Your task to perform on an android device: Add "macbook pro 15 inch" to the cart on costco Image 0: 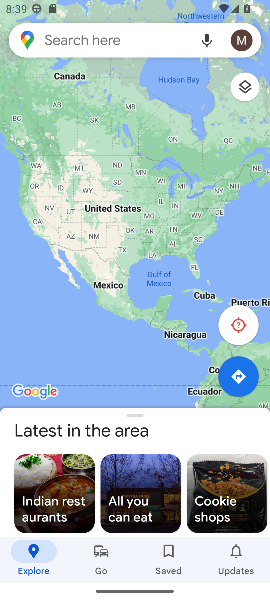
Step 0: press home button
Your task to perform on an android device: Add "macbook pro 15 inch" to the cart on costco Image 1: 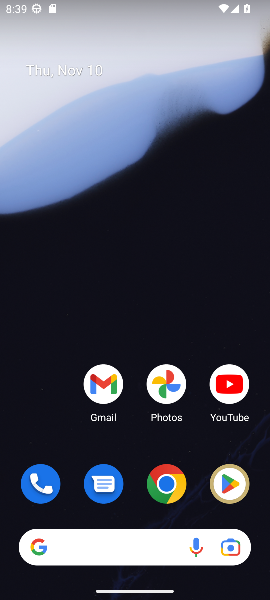
Step 1: click (168, 487)
Your task to perform on an android device: Add "macbook pro 15 inch" to the cart on costco Image 2: 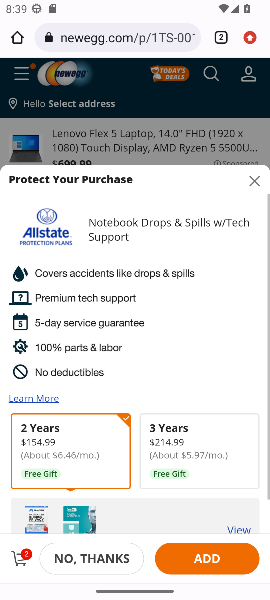
Step 2: click (124, 40)
Your task to perform on an android device: Add "macbook pro 15 inch" to the cart on costco Image 3: 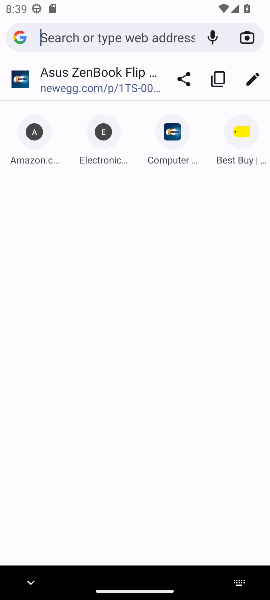
Step 3: type "costco.com"
Your task to perform on an android device: Add "macbook pro 15 inch" to the cart on costco Image 4: 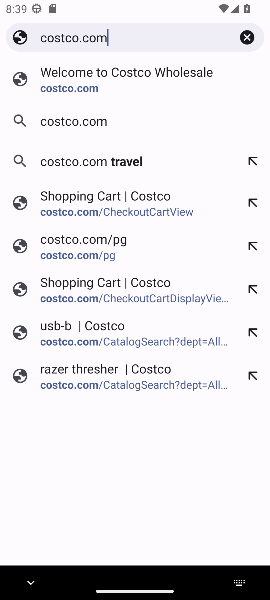
Step 4: click (62, 82)
Your task to perform on an android device: Add "macbook pro 15 inch" to the cart on costco Image 5: 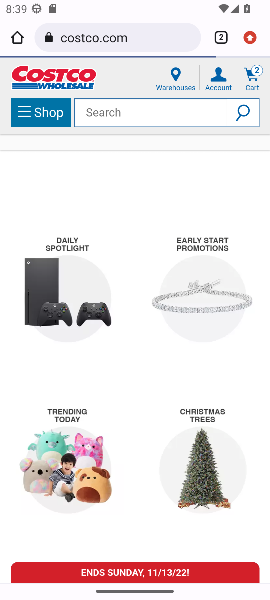
Step 5: click (92, 114)
Your task to perform on an android device: Add "macbook pro 15 inch" to the cart on costco Image 6: 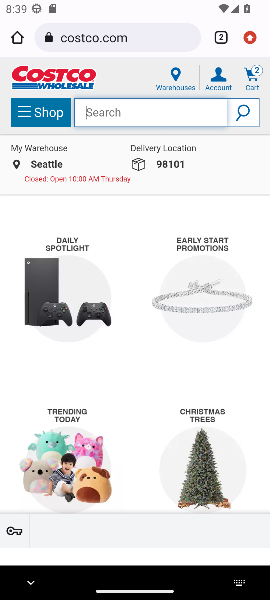
Step 6: type "macbook pro 15 inch"
Your task to perform on an android device: Add "macbook pro 15 inch" to the cart on costco Image 7: 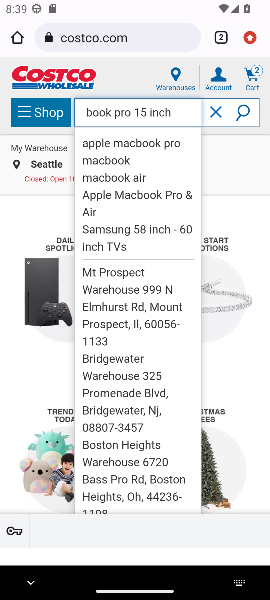
Step 7: click (245, 109)
Your task to perform on an android device: Add "macbook pro 15 inch" to the cart on costco Image 8: 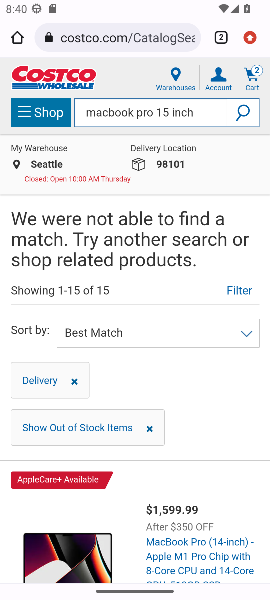
Step 8: task complete